Your task to perform on an android device: change text size in settings app Image 0: 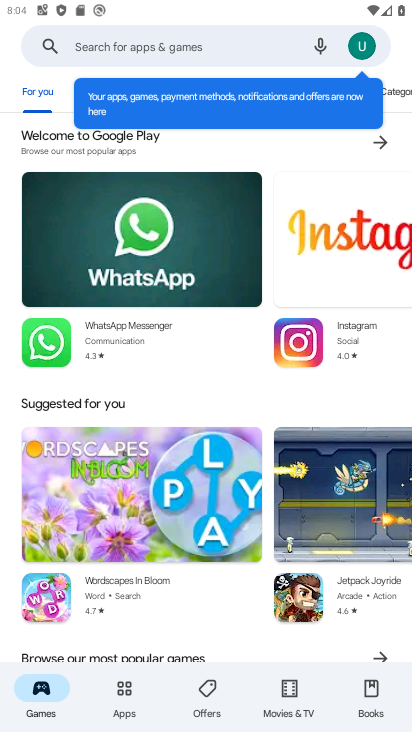
Step 0: press home button
Your task to perform on an android device: change text size in settings app Image 1: 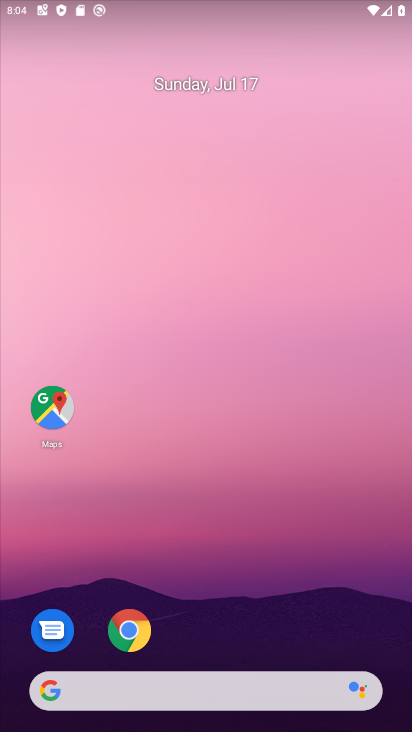
Step 1: drag from (216, 677) to (212, 0)
Your task to perform on an android device: change text size in settings app Image 2: 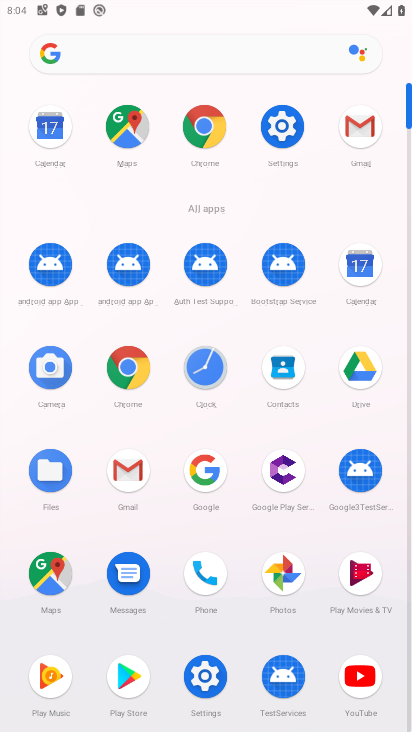
Step 2: click (291, 112)
Your task to perform on an android device: change text size in settings app Image 3: 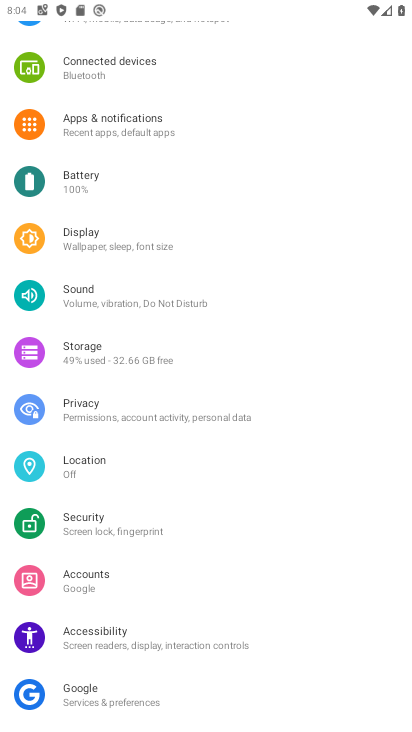
Step 3: click (137, 241)
Your task to perform on an android device: change text size in settings app Image 4: 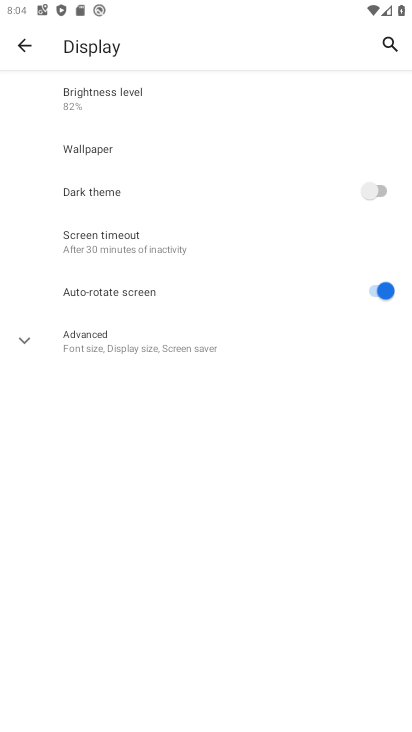
Step 4: click (118, 342)
Your task to perform on an android device: change text size in settings app Image 5: 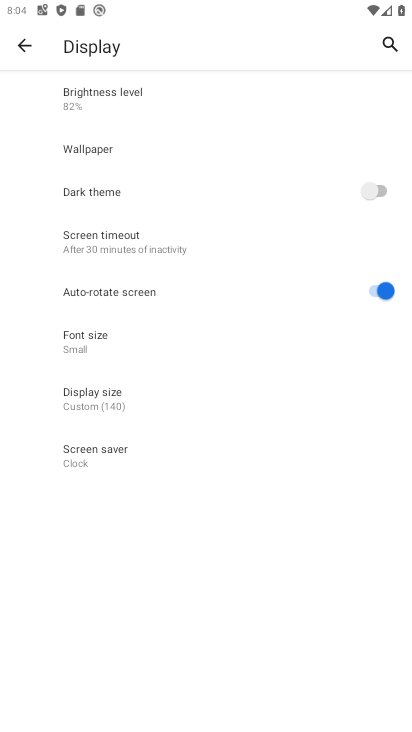
Step 5: click (114, 340)
Your task to perform on an android device: change text size in settings app Image 6: 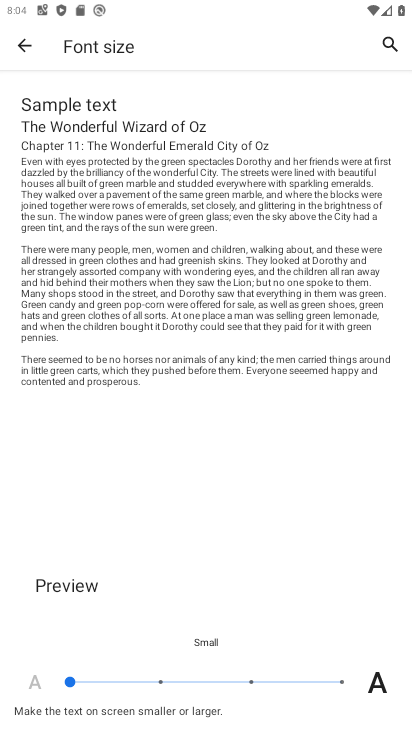
Step 6: click (163, 685)
Your task to perform on an android device: change text size in settings app Image 7: 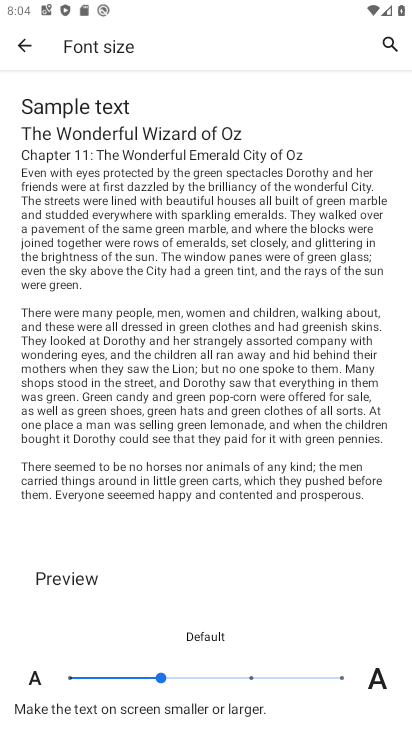
Step 7: task complete